Your task to perform on an android device: Search for 3d printed chess sets on Etsy. Image 0: 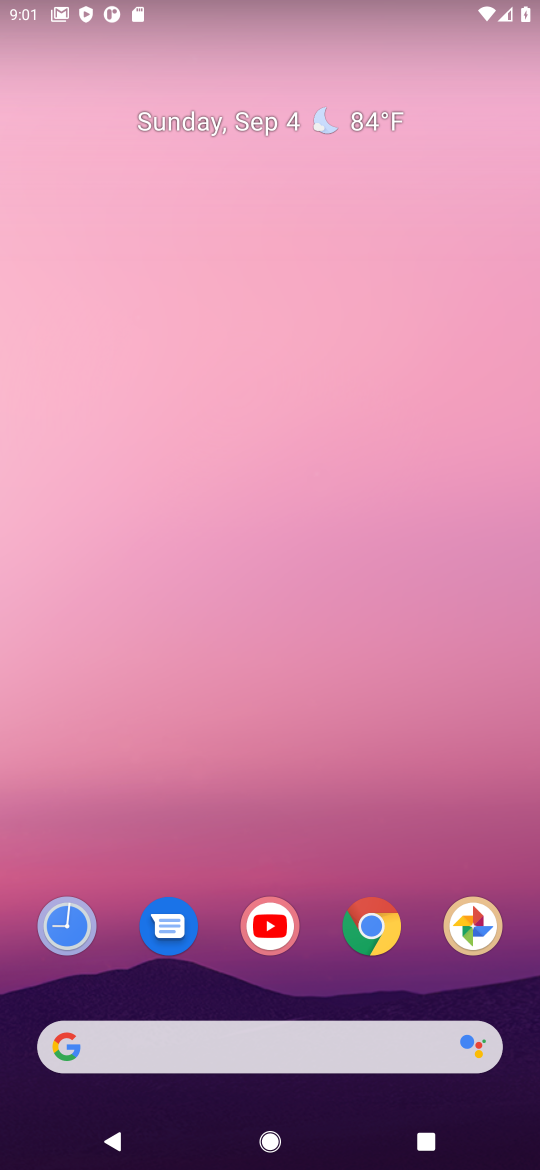
Step 0: click (228, 1040)
Your task to perform on an android device: Search for 3d printed chess sets on Etsy. Image 1: 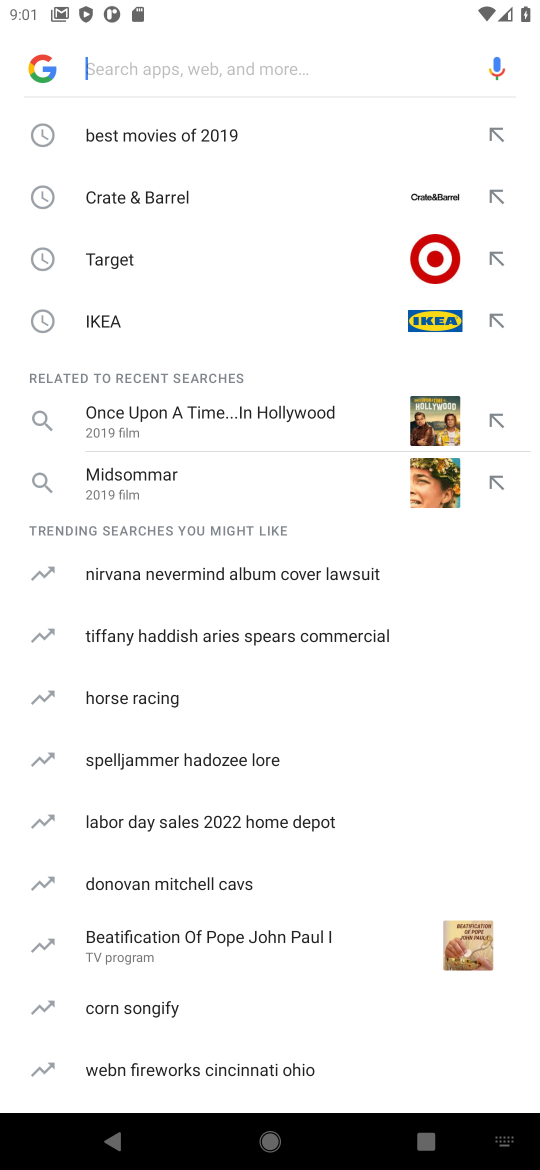
Step 1: type "etsy"
Your task to perform on an android device: Search for 3d printed chess sets on Etsy. Image 2: 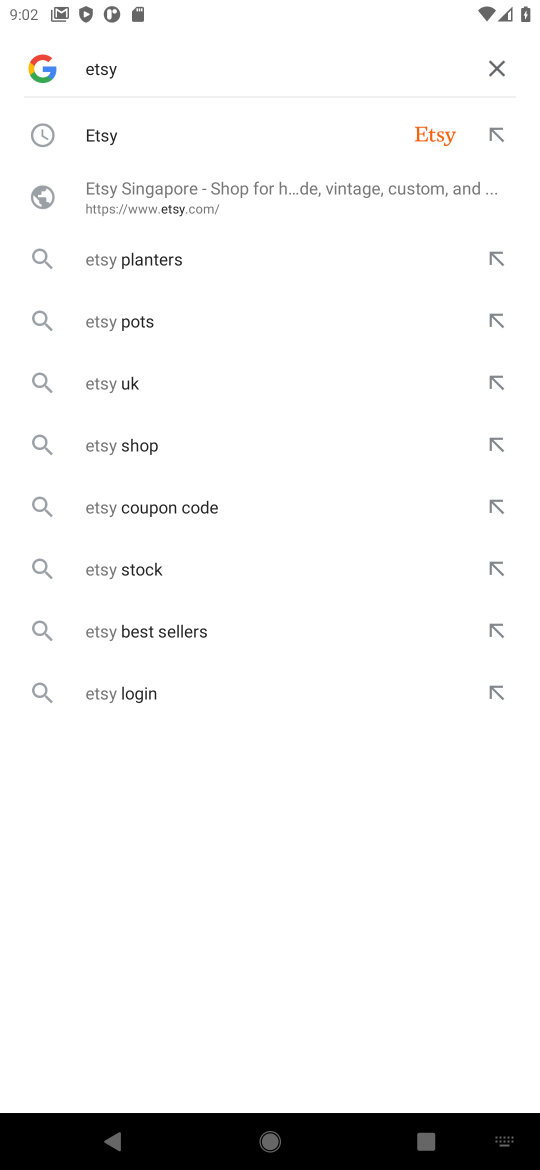
Step 2: click (117, 128)
Your task to perform on an android device: Search for 3d printed chess sets on Etsy. Image 3: 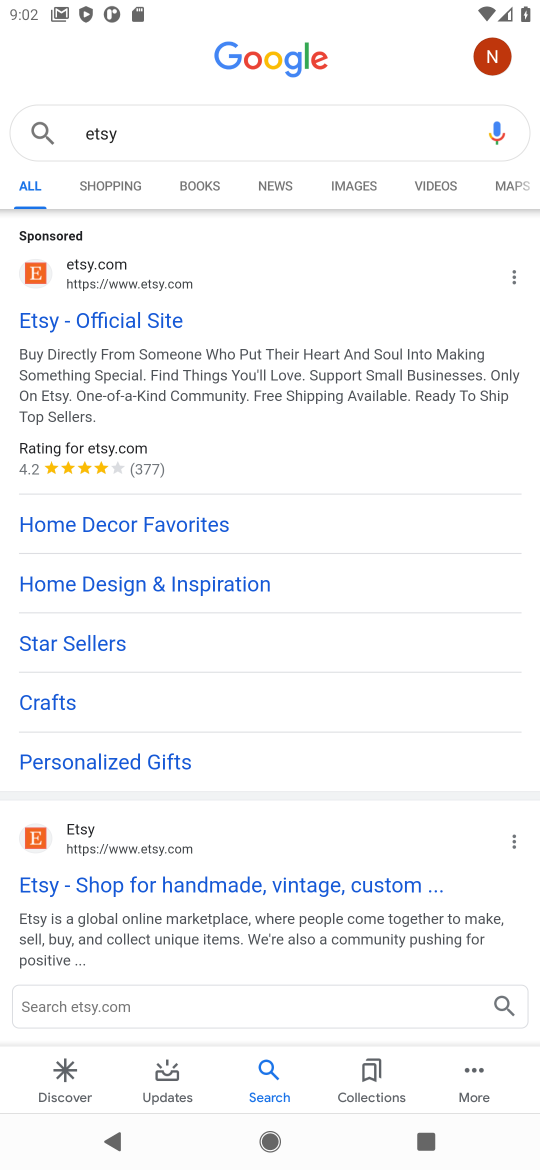
Step 3: click (117, 317)
Your task to perform on an android device: Search for 3d printed chess sets on Etsy. Image 4: 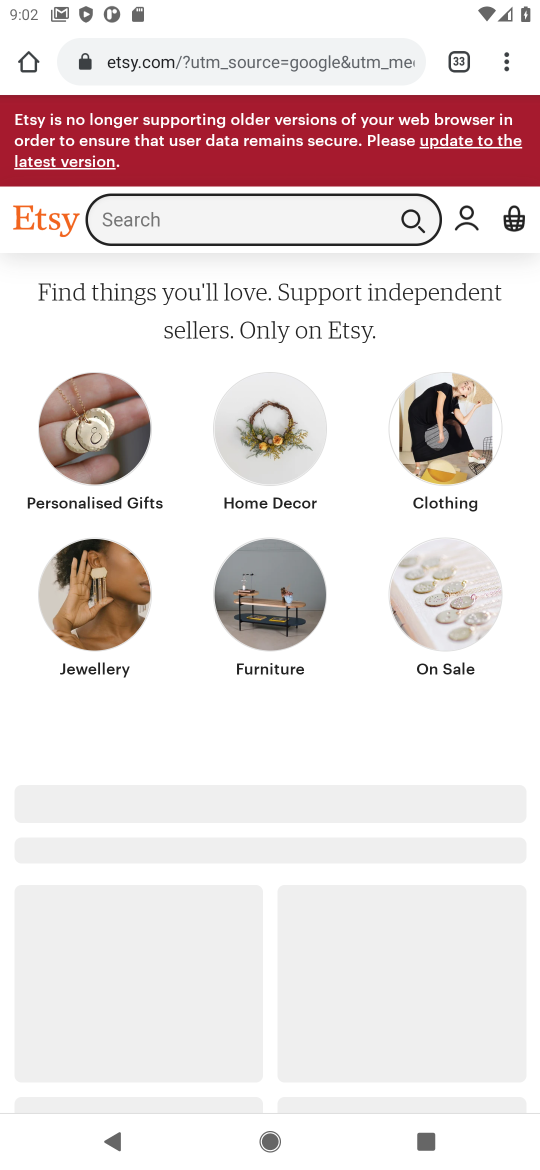
Step 4: click (207, 224)
Your task to perform on an android device: Search for 3d printed chess sets on Etsy. Image 5: 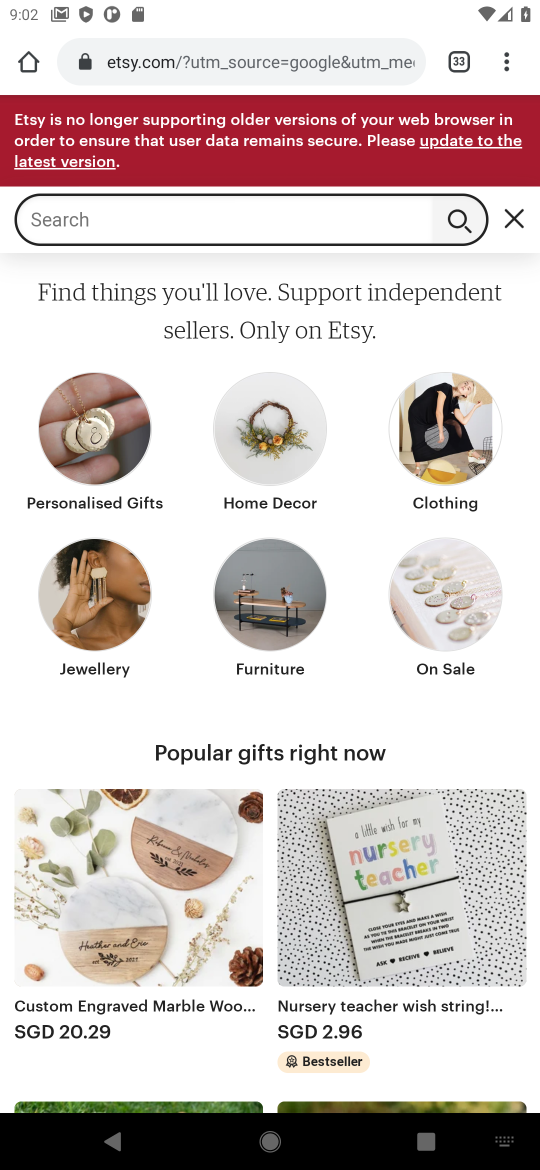
Step 5: type "3d printed chess sets"
Your task to perform on an android device: Search for 3d printed chess sets on Etsy. Image 6: 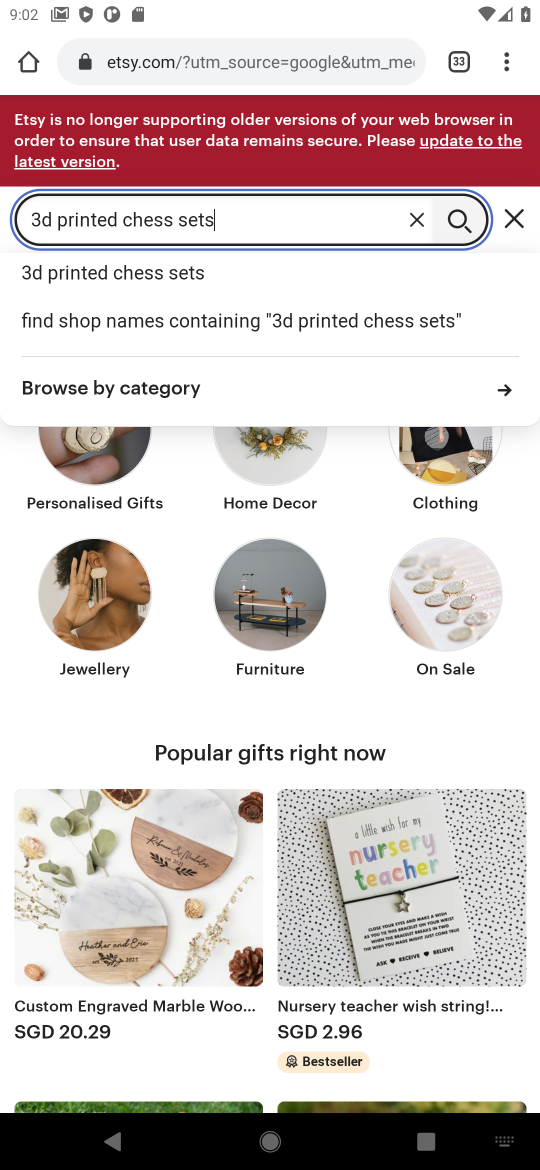
Step 6: click (454, 202)
Your task to perform on an android device: Search for 3d printed chess sets on Etsy. Image 7: 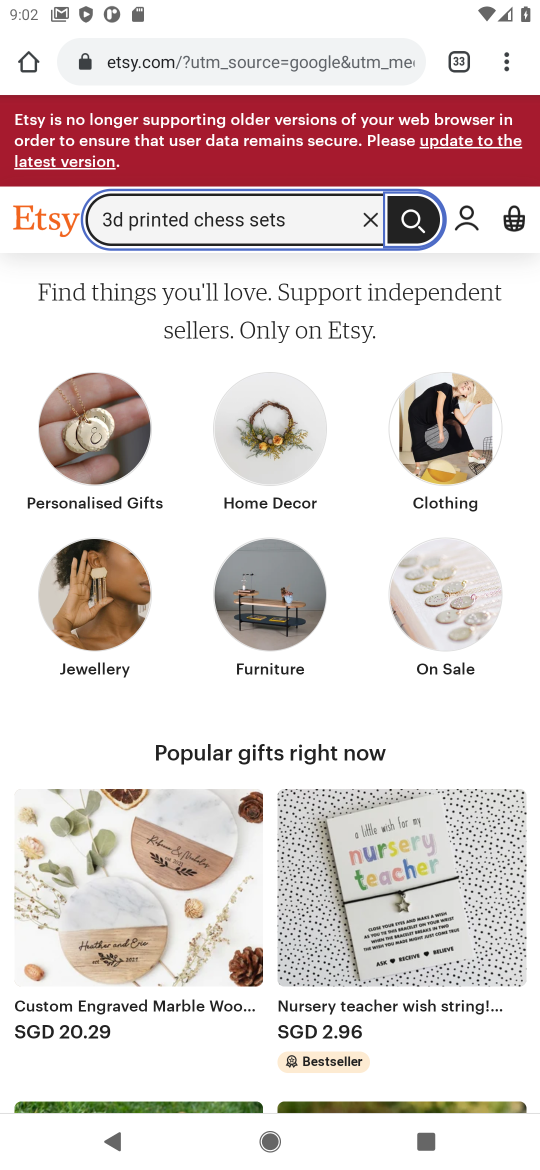
Step 7: click (414, 226)
Your task to perform on an android device: Search for 3d printed chess sets on Etsy. Image 8: 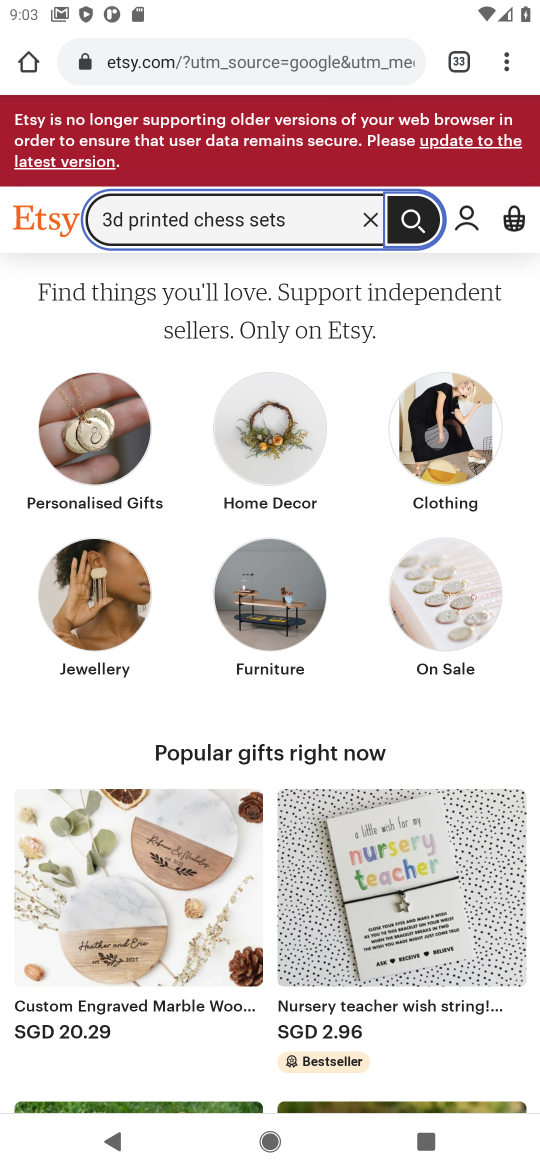
Step 8: click (419, 227)
Your task to perform on an android device: Search for 3d printed chess sets on Etsy. Image 9: 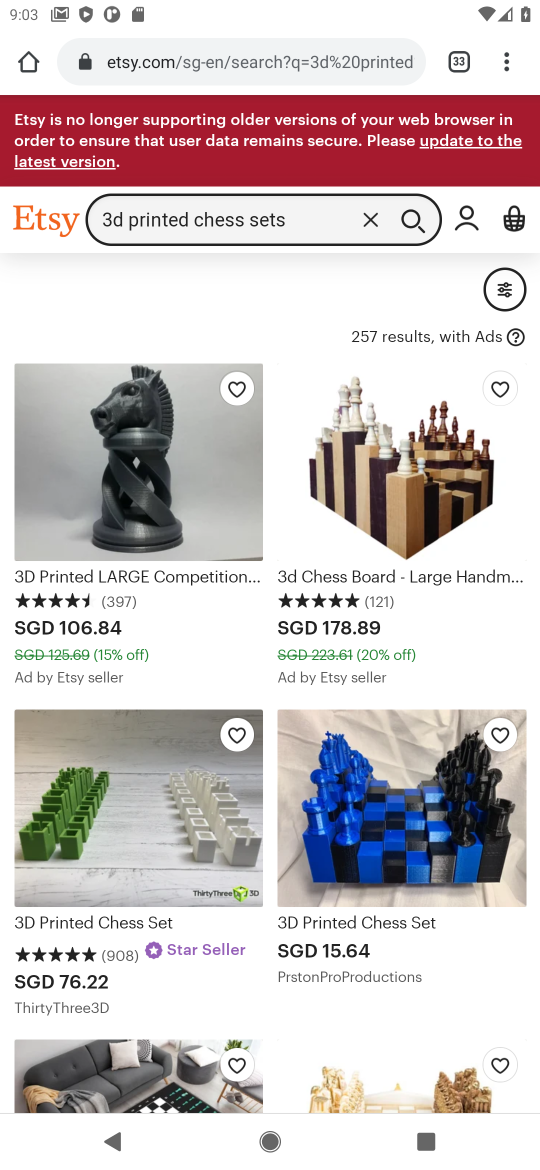
Step 9: task complete